Your task to perform on an android device: Open CNN.com Image 0: 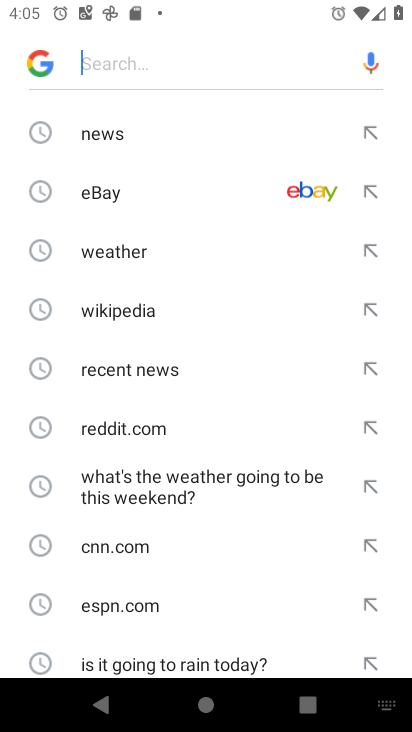
Step 0: press home button
Your task to perform on an android device: Open CNN.com Image 1: 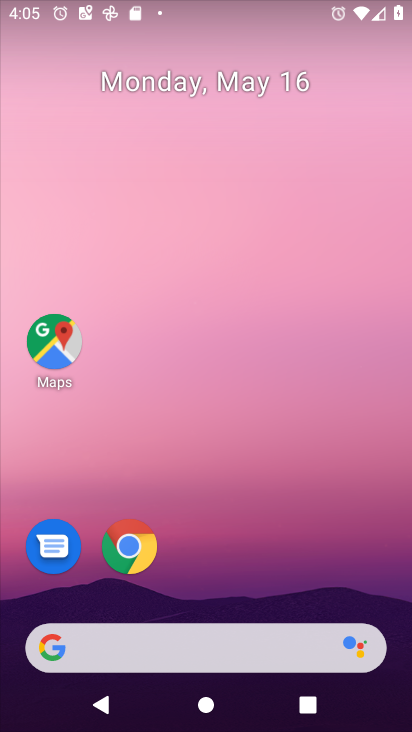
Step 1: drag from (334, 584) to (345, 106)
Your task to perform on an android device: Open CNN.com Image 2: 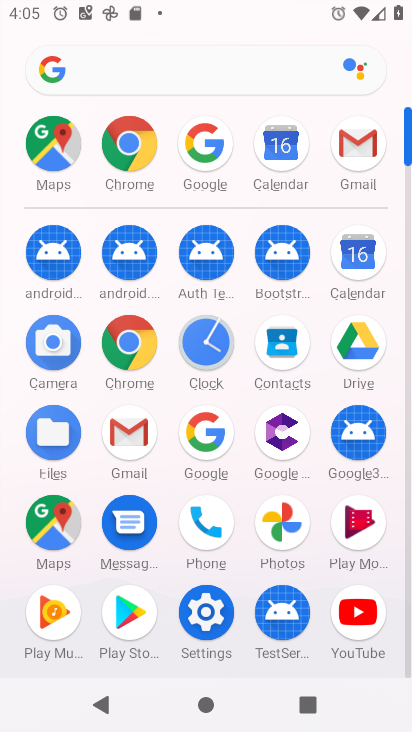
Step 2: click (143, 353)
Your task to perform on an android device: Open CNN.com Image 3: 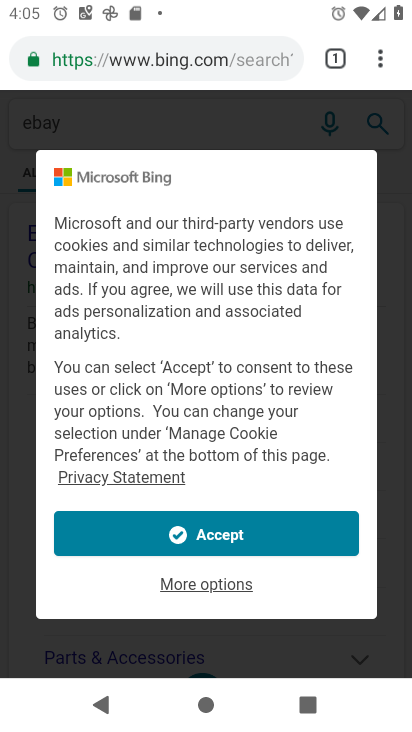
Step 3: click (235, 59)
Your task to perform on an android device: Open CNN.com Image 4: 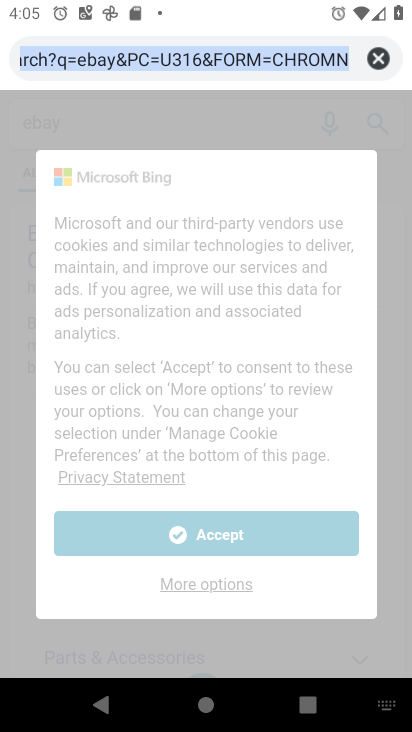
Step 4: click (382, 54)
Your task to perform on an android device: Open CNN.com Image 5: 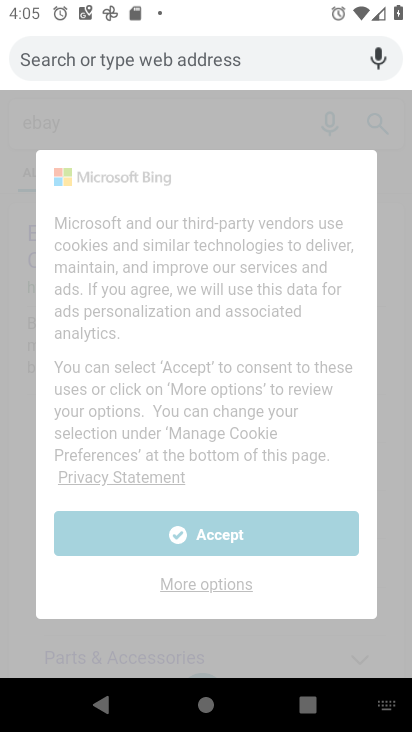
Step 5: type "cnn.com"
Your task to perform on an android device: Open CNN.com Image 6: 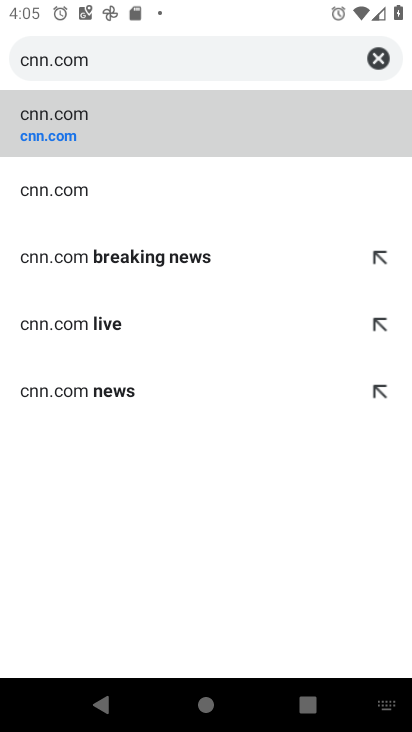
Step 6: click (45, 130)
Your task to perform on an android device: Open CNN.com Image 7: 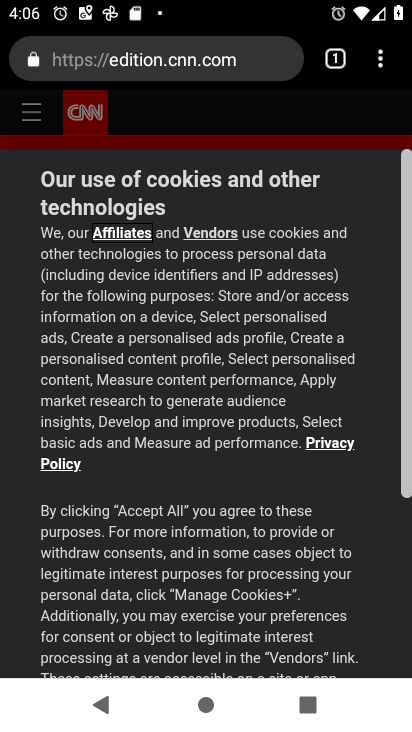
Step 7: task complete